Your task to perform on an android device: snooze an email in the gmail app Image 0: 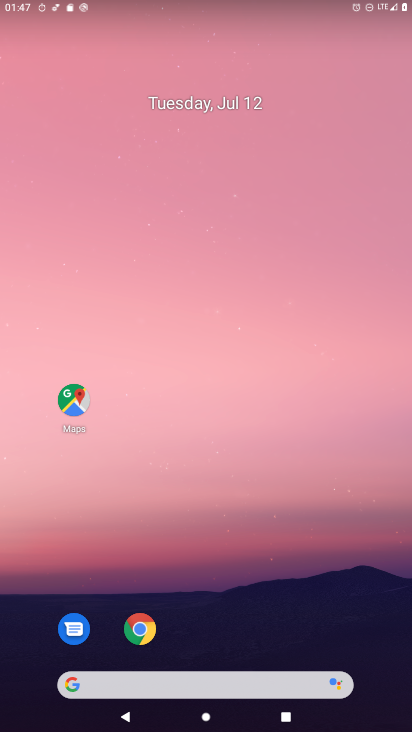
Step 0: drag from (31, 713) to (313, 4)
Your task to perform on an android device: snooze an email in the gmail app Image 1: 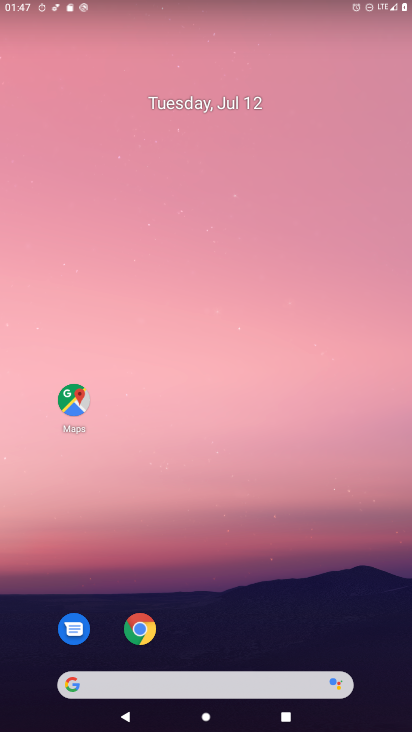
Step 1: drag from (37, 705) to (149, 270)
Your task to perform on an android device: snooze an email in the gmail app Image 2: 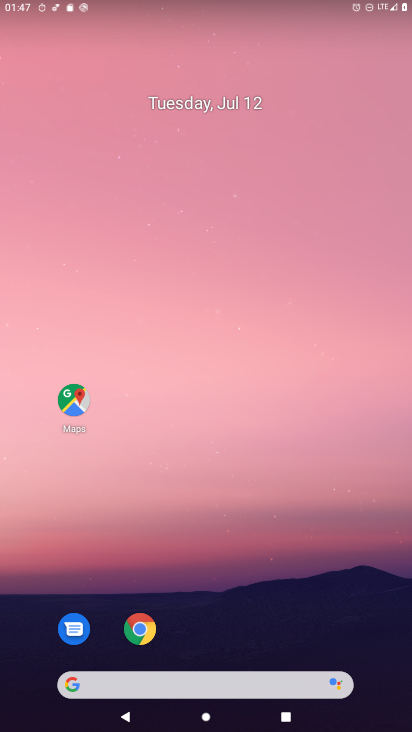
Step 2: drag from (33, 684) to (272, 30)
Your task to perform on an android device: snooze an email in the gmail app Image 3: 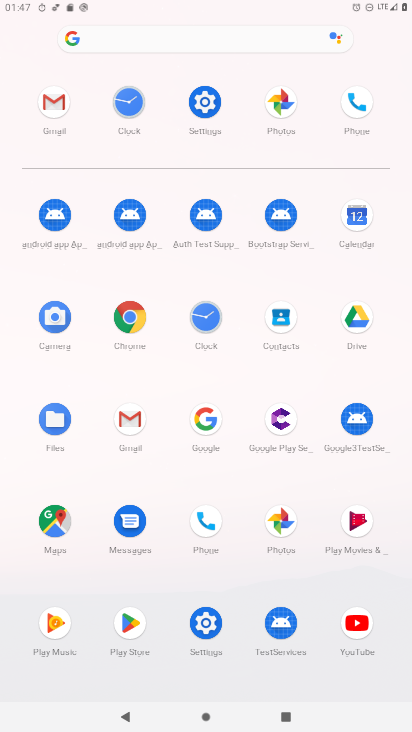
Step 3: click (137, 424)
Your task to perform on an android device: snooze an email in the gmail app Image 4: 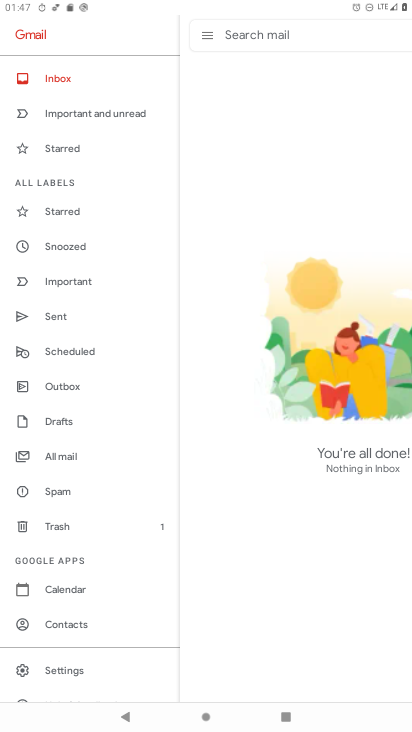
Step 4: click (62, 343)
Your task to perform on an android device: snooze an email in the gmail app Image 5: 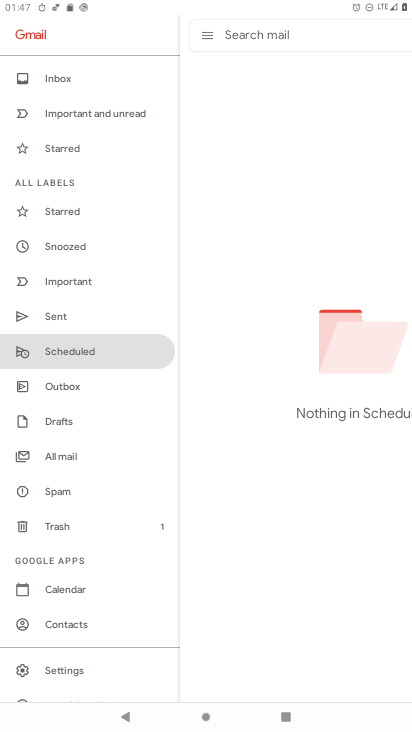
Step 5: task complete